Your task to perform on an android device: Search for the best vacuum on Amazon. Image 0: 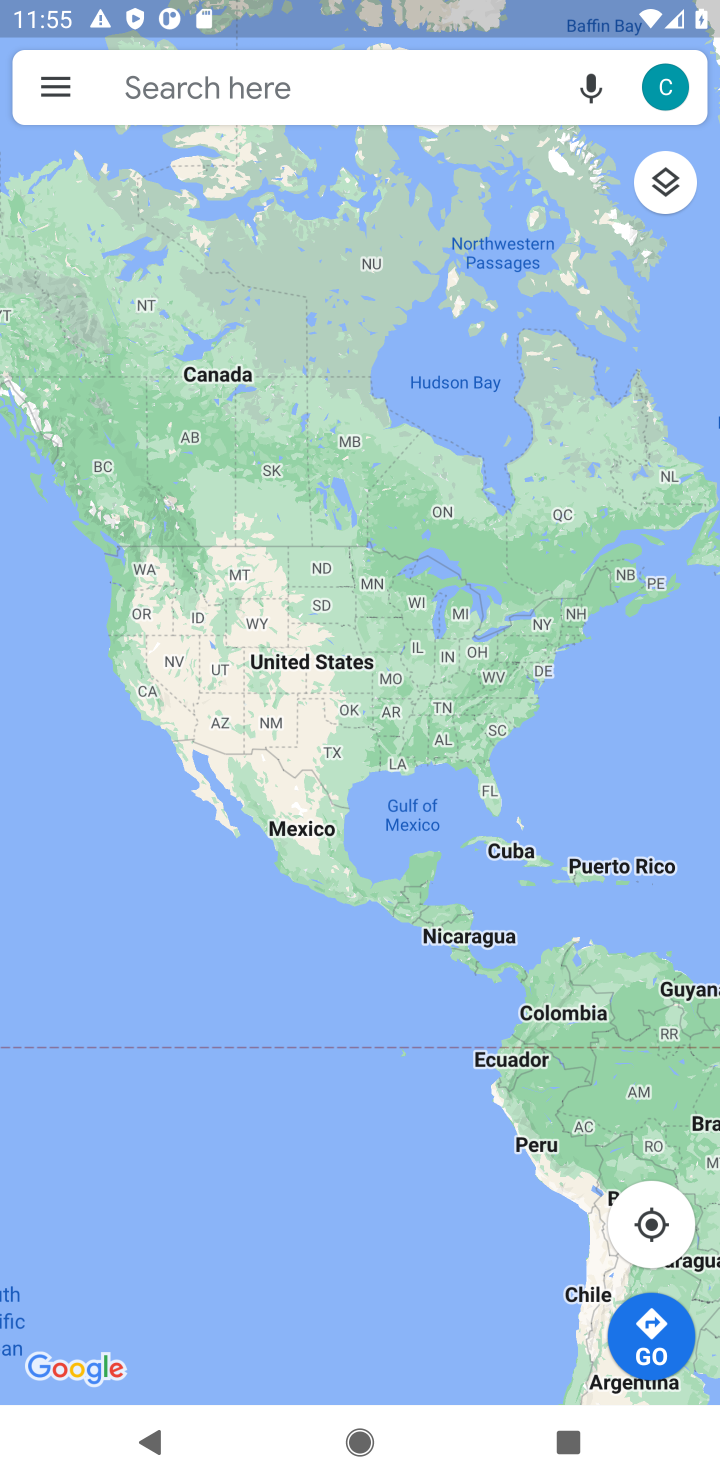
Step 0: press home button
Your task to perform on an android device: Search for the best vacuum on Amazon. Image 1: 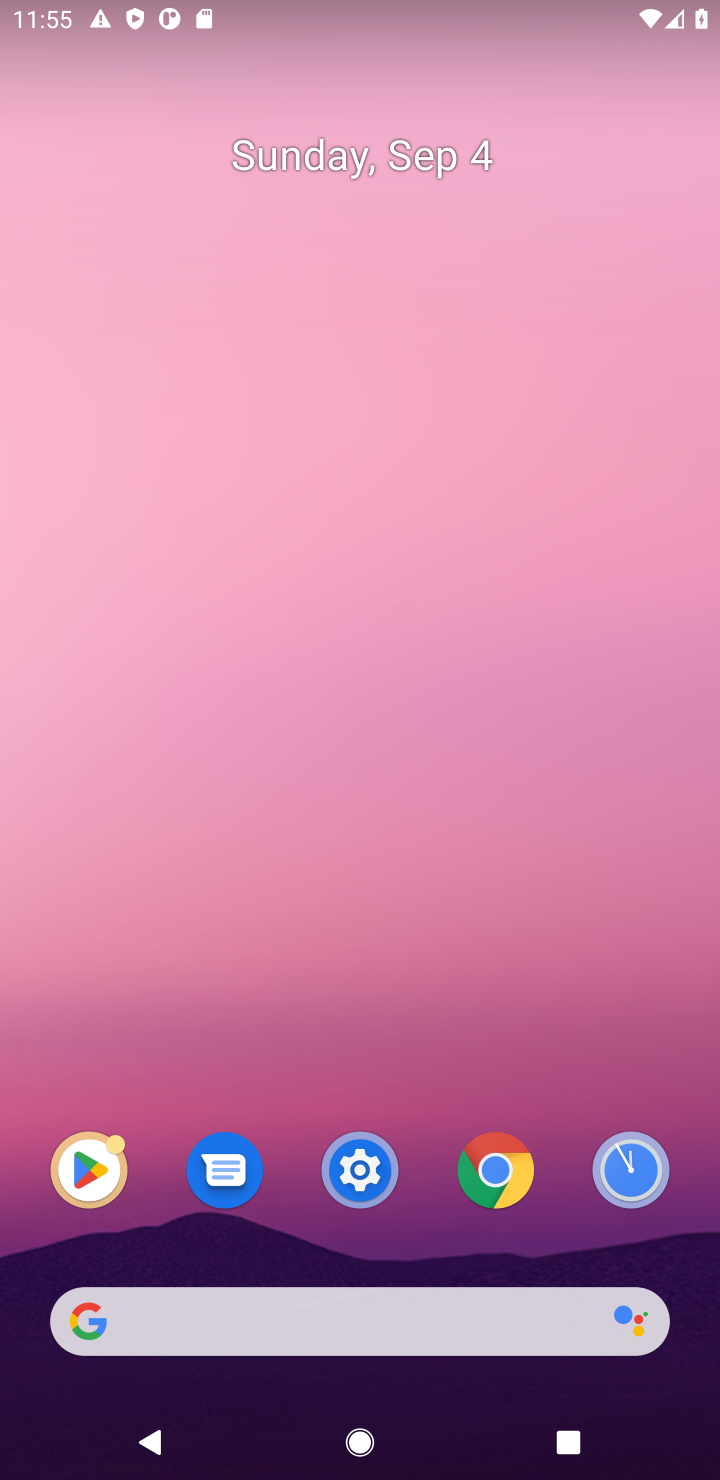
Step 1: click (519, 1305)
Your task to perform on an android device: Search for the best vacuum on Amazon. Image 2: 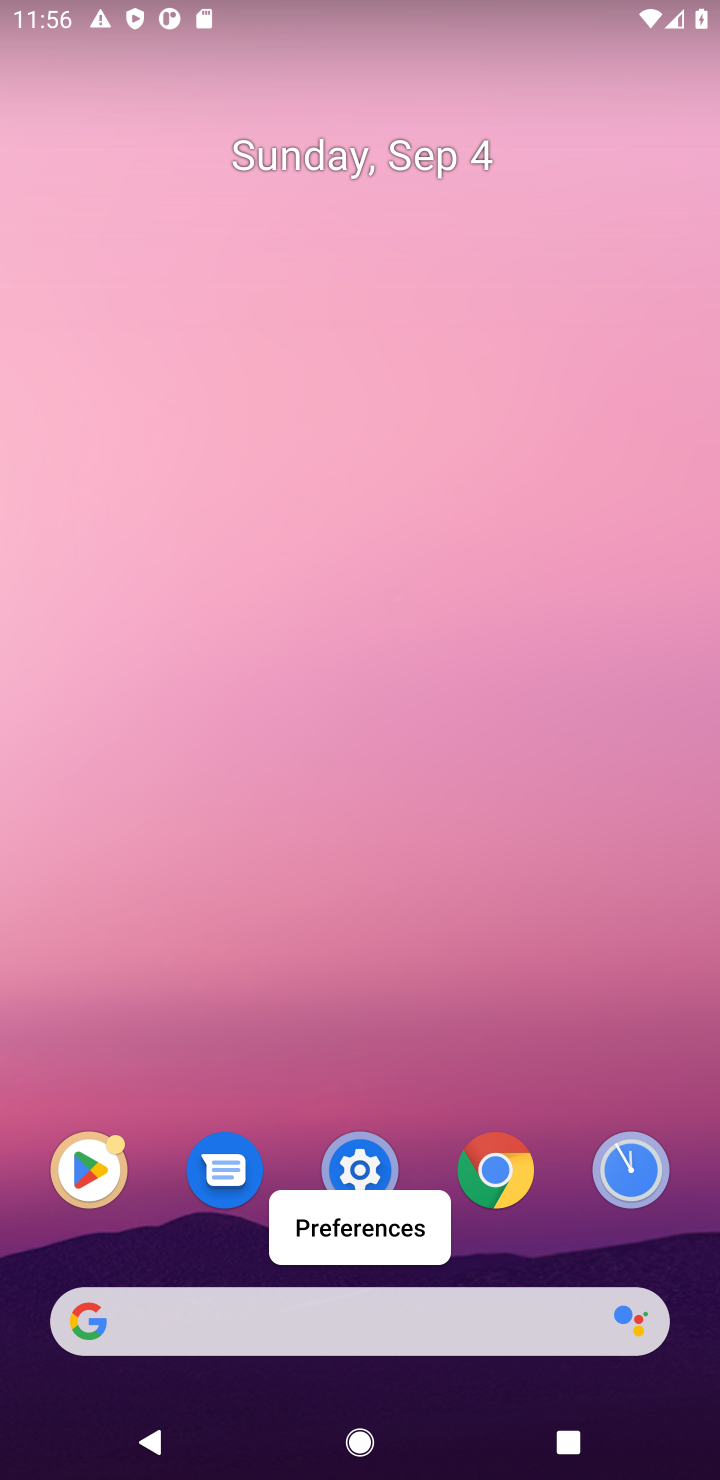
Step 2: click (519, 1305)
Your task to perform on an android device: Search for the best vacuum on Amazon. Image 3: 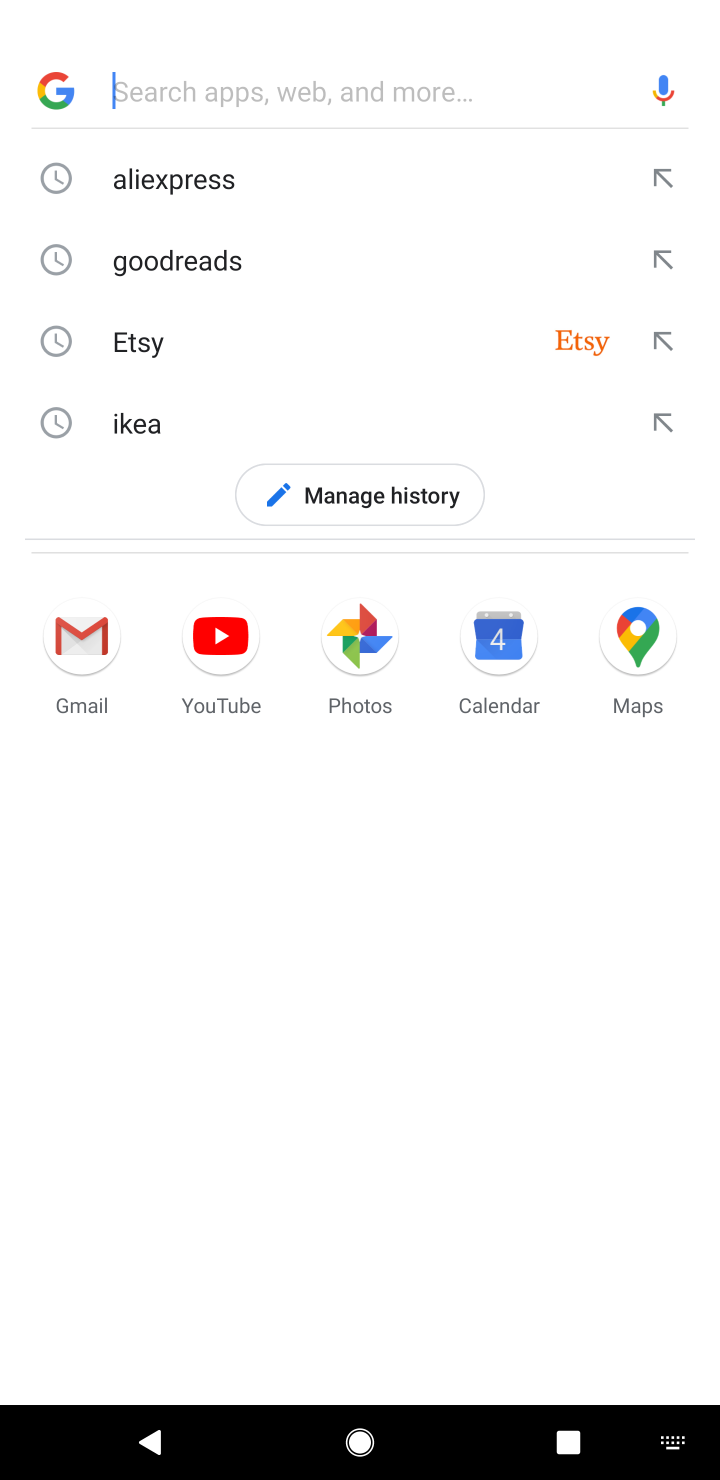
Step 3: type "Amazon."
Your task to perform on an android device: Search for the best vacuum on Amazon. Image 4: 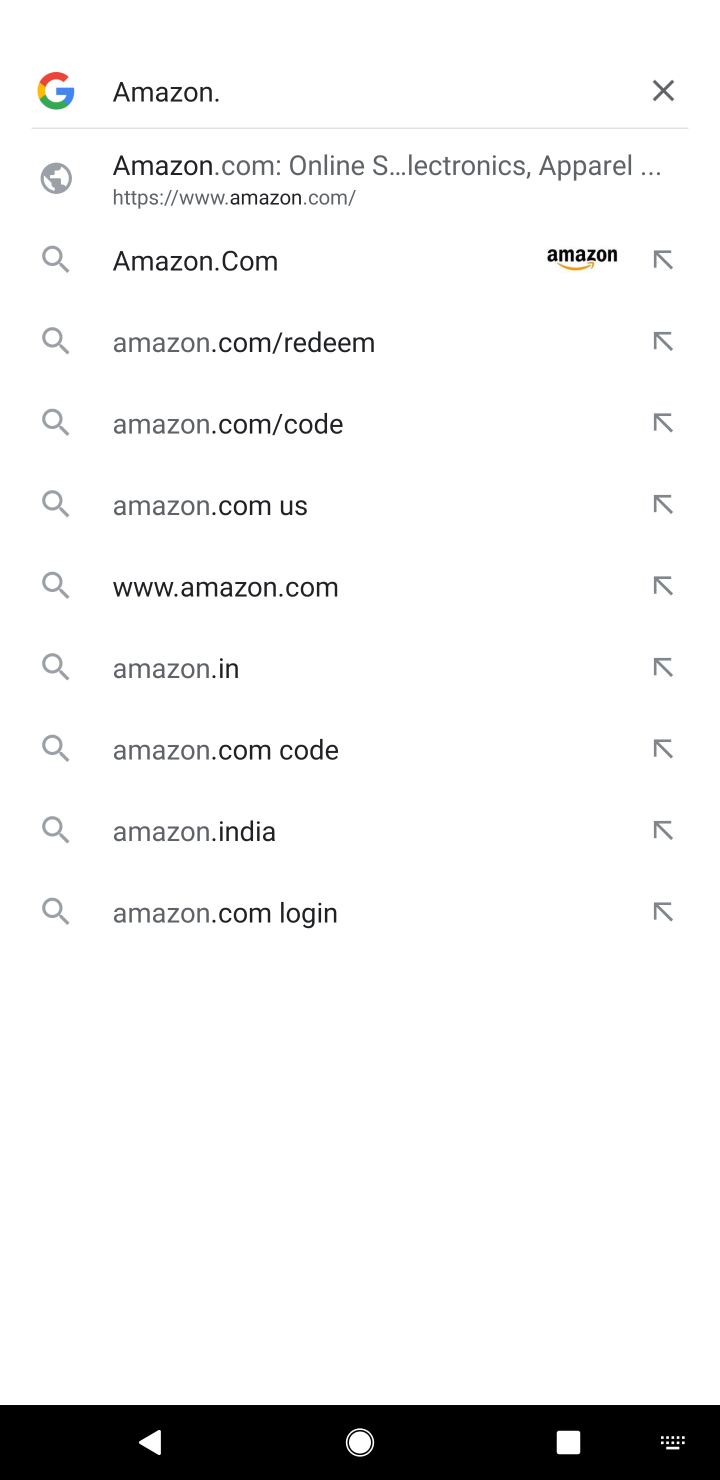
Step 4: click (253, 191)
Your task to perform on an android device: Search for the best vacuum on Amazon. Image 5: 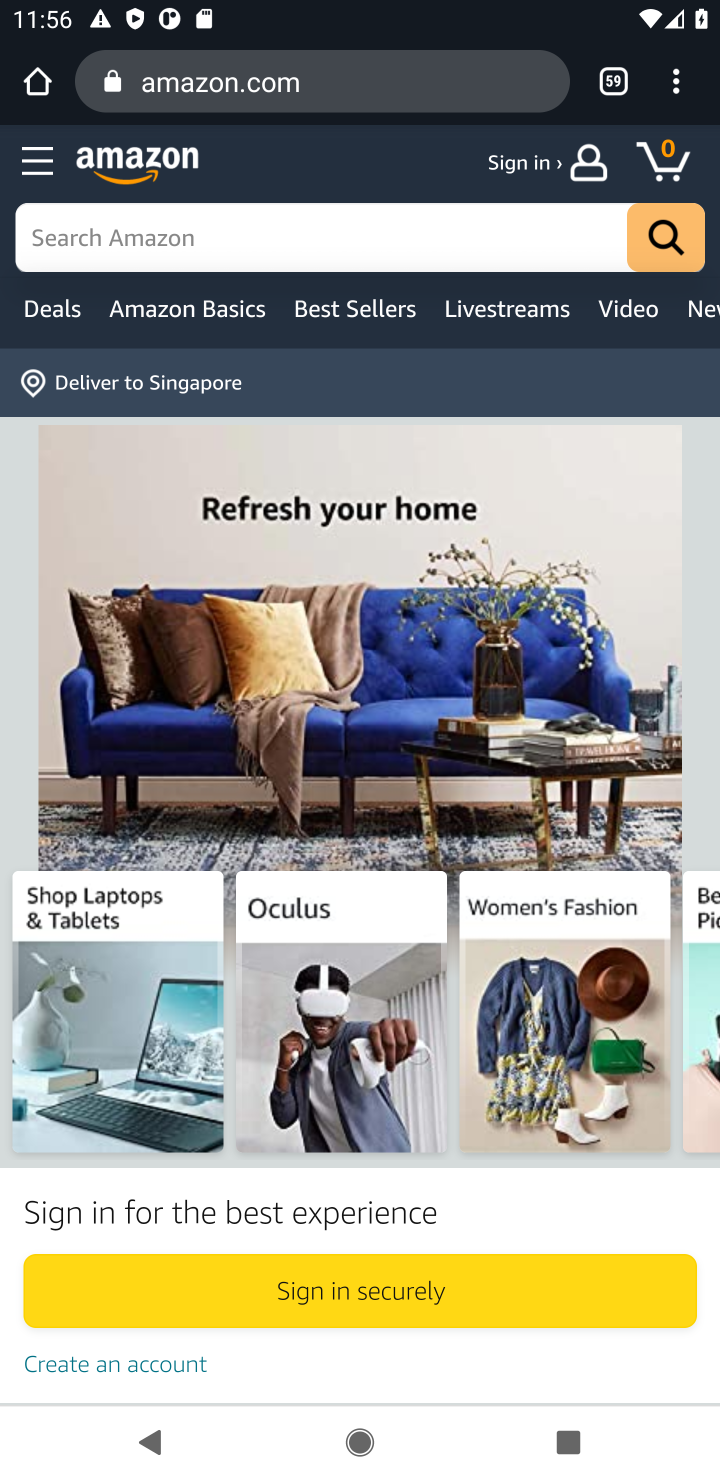
Step 5: click (289, 223)
Your task to perform on an android device: Search for the best vacuum on Amazon. Image 6: 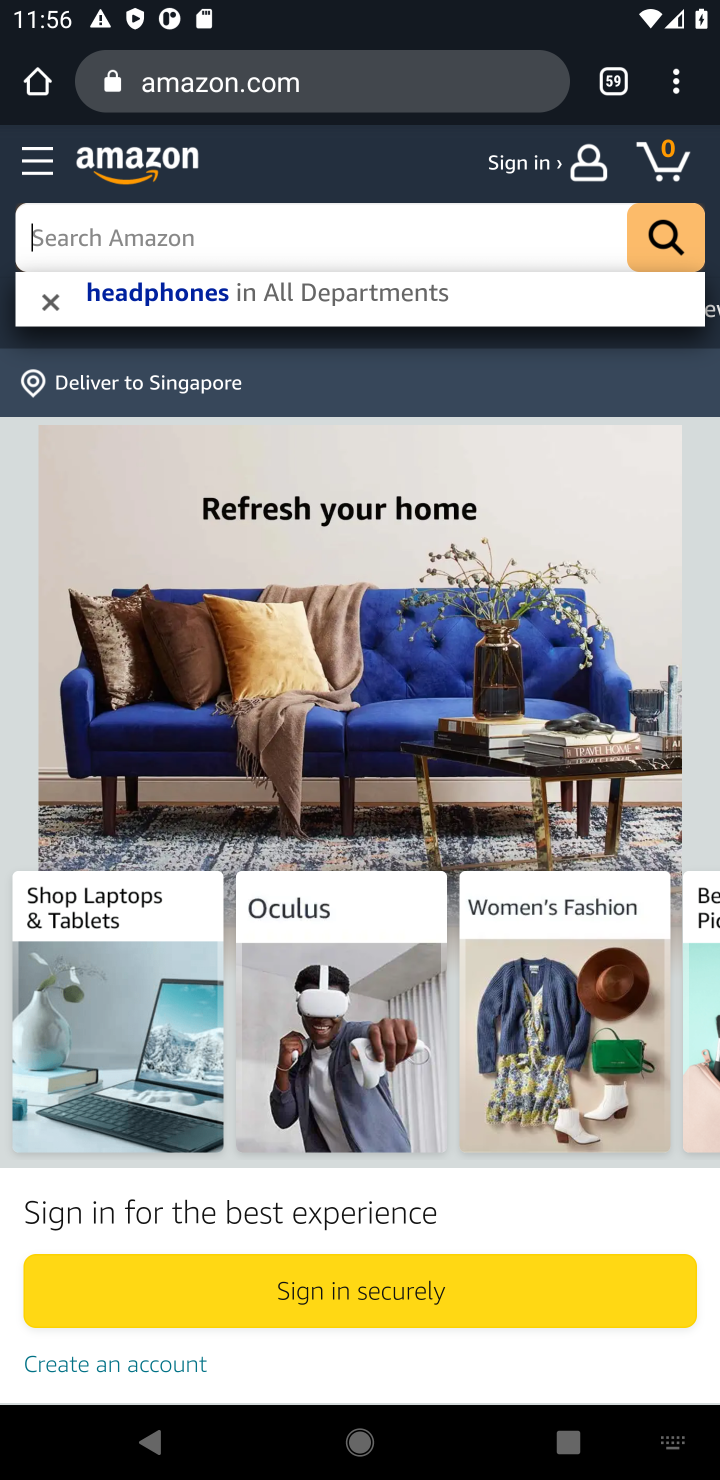
Step 6: type "vacuum"
Your task to perform on an android device: Search for the best vacuum on Amazon. Image 7: 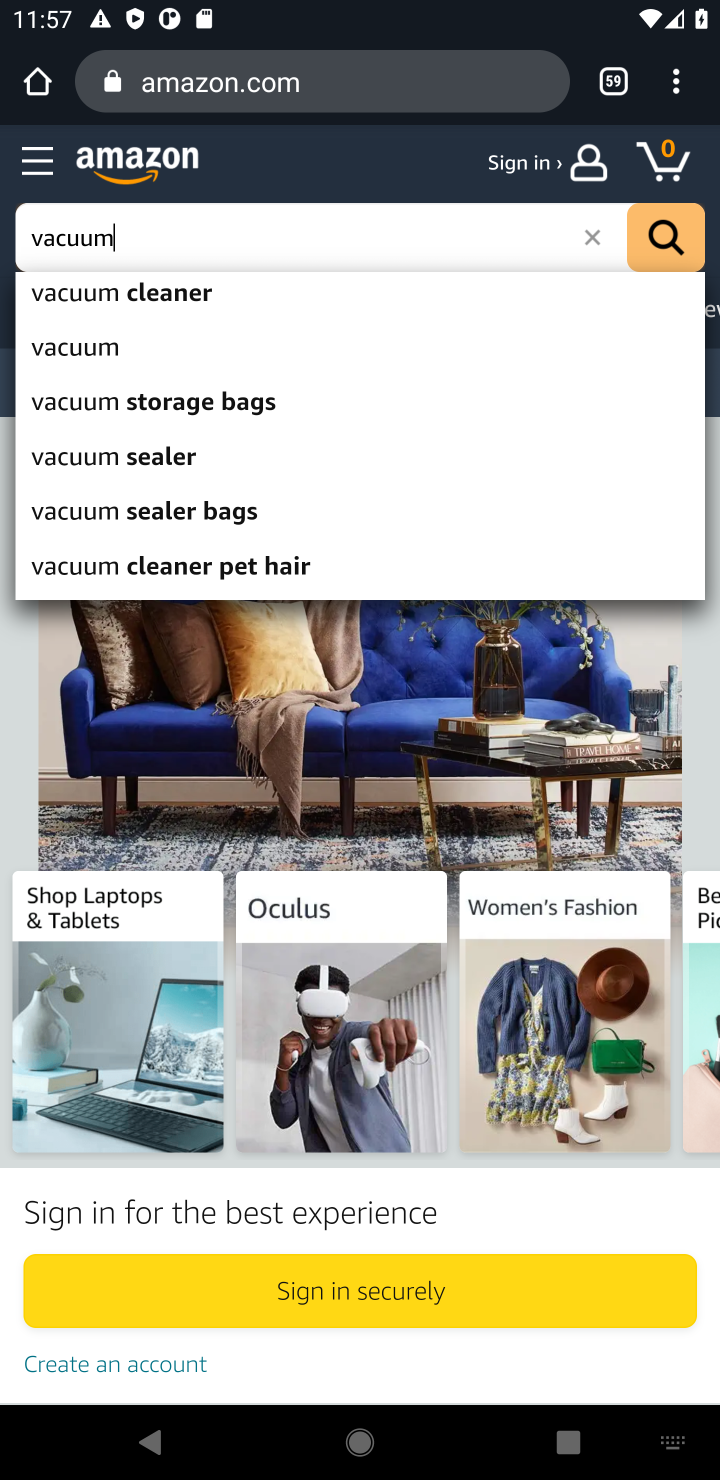
Step 7: click (123, 349)
Your task to perform on an android device: Search for the best vacuum on Amazon. Image 8: 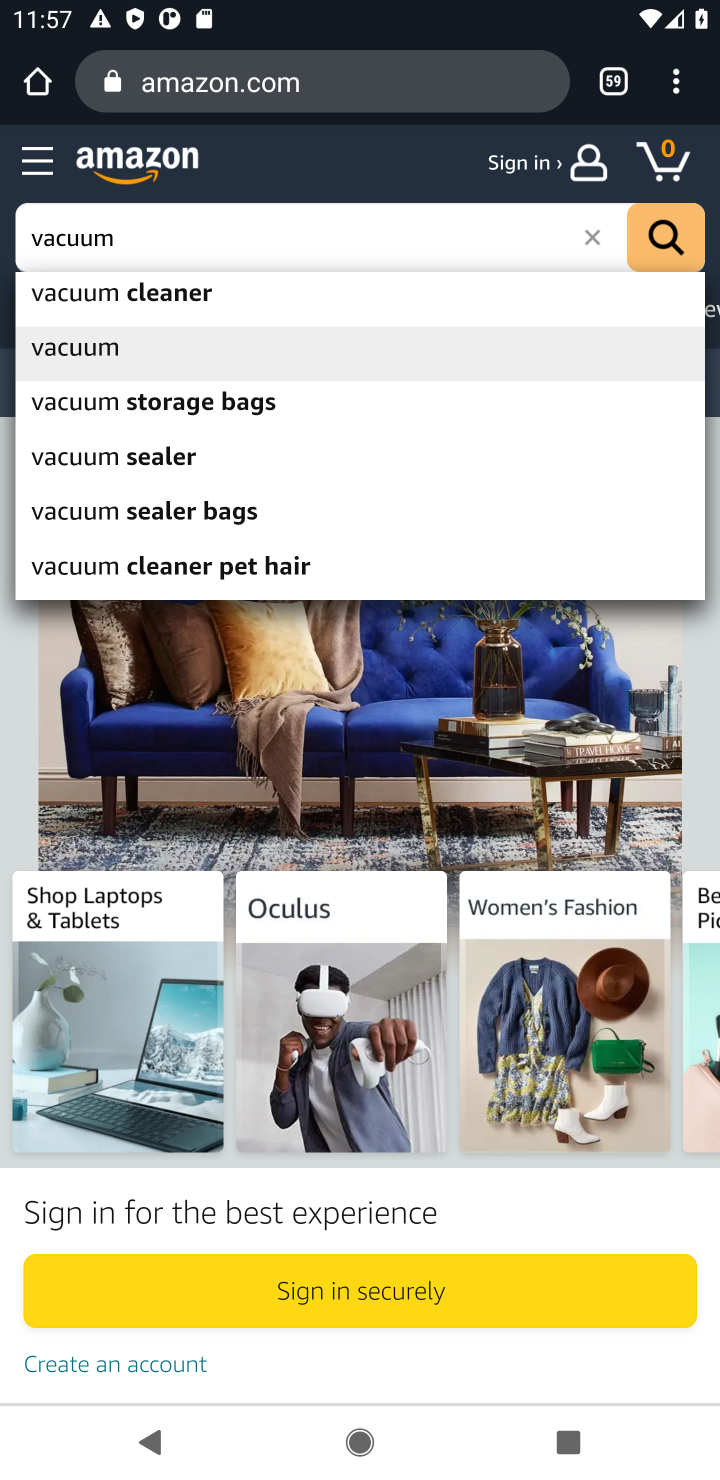
Step 8: click (209, 358)
Your task to perform on an android device: Search for the best vacuum on Amazon. Image 9: 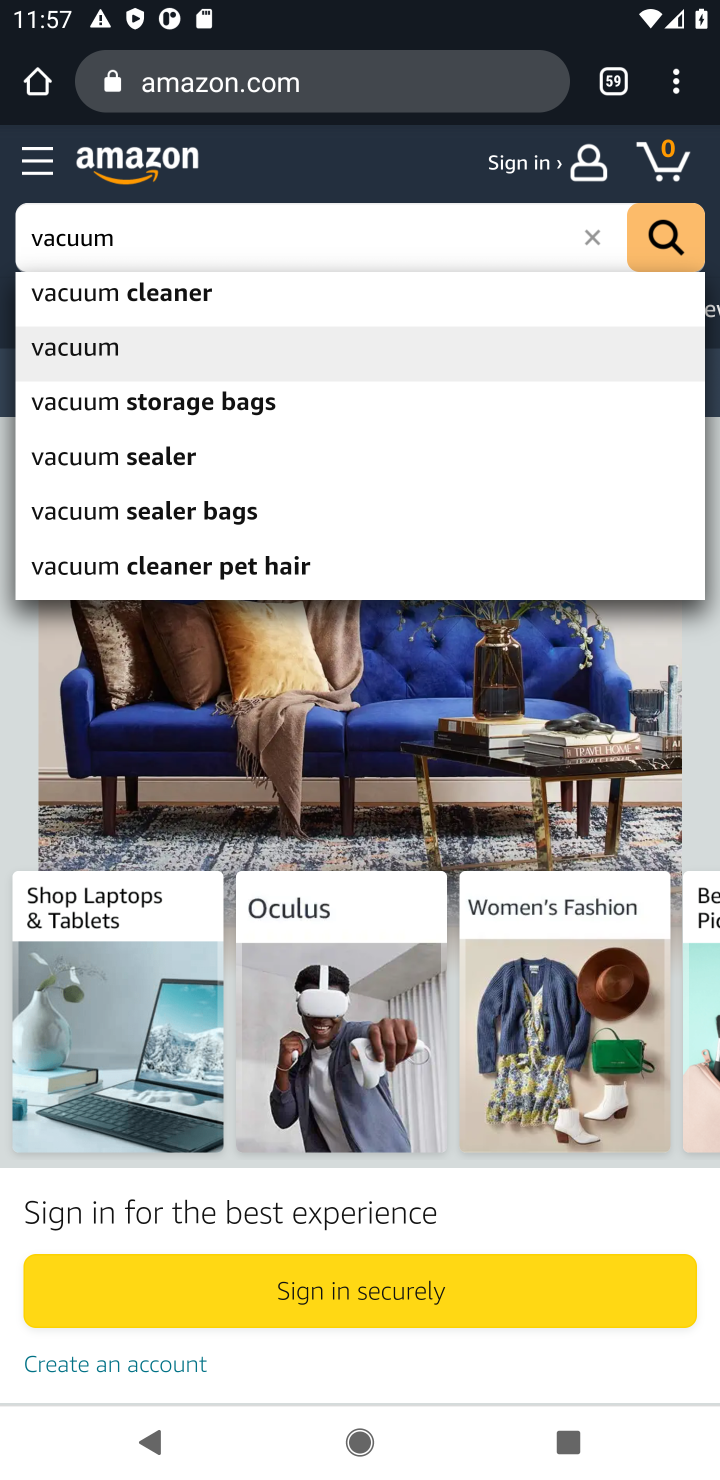
Step 9: click (139, 339)
Your task to perform on an android device: Search for the best vacuum on Amazon. Image 10: 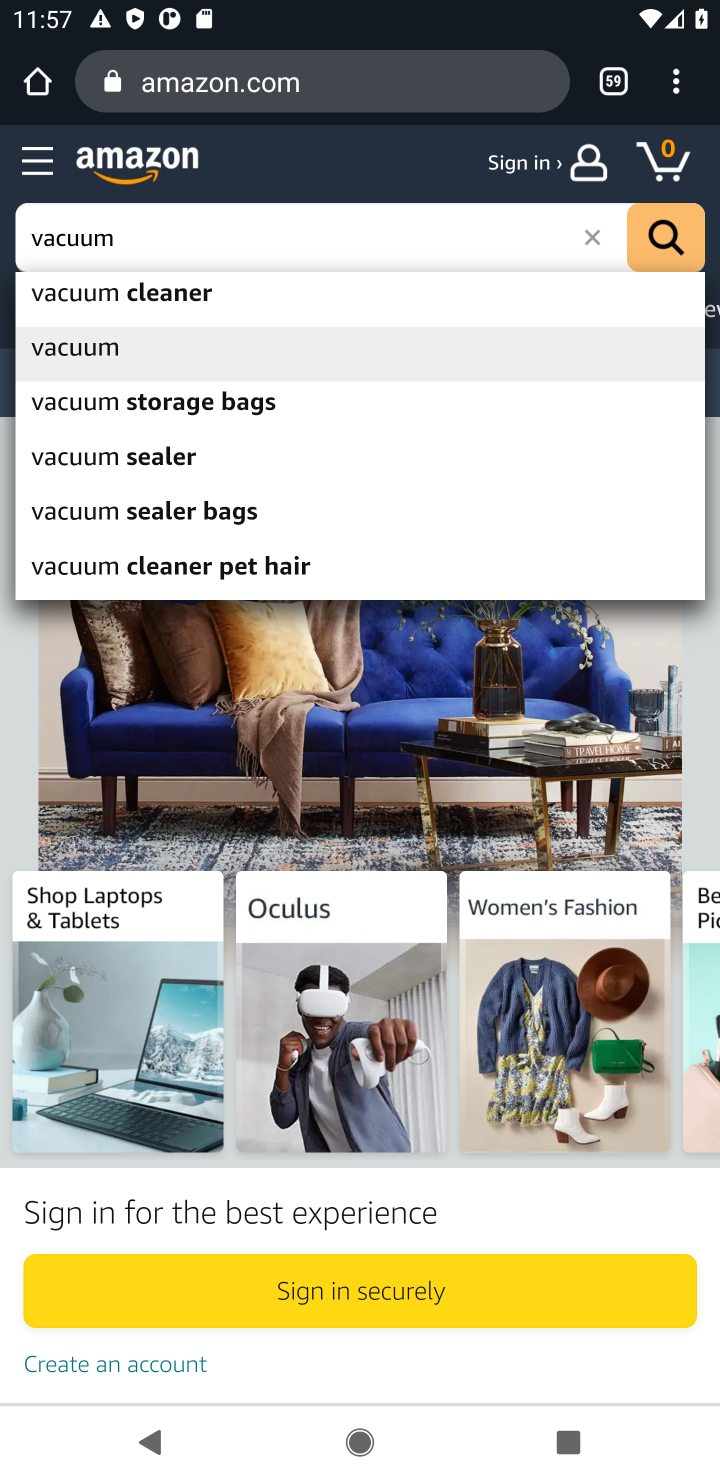
Step 10: click (144, 351)
Your task to perform on an android device: Search for the best vacuum on Amazon. Image 11: 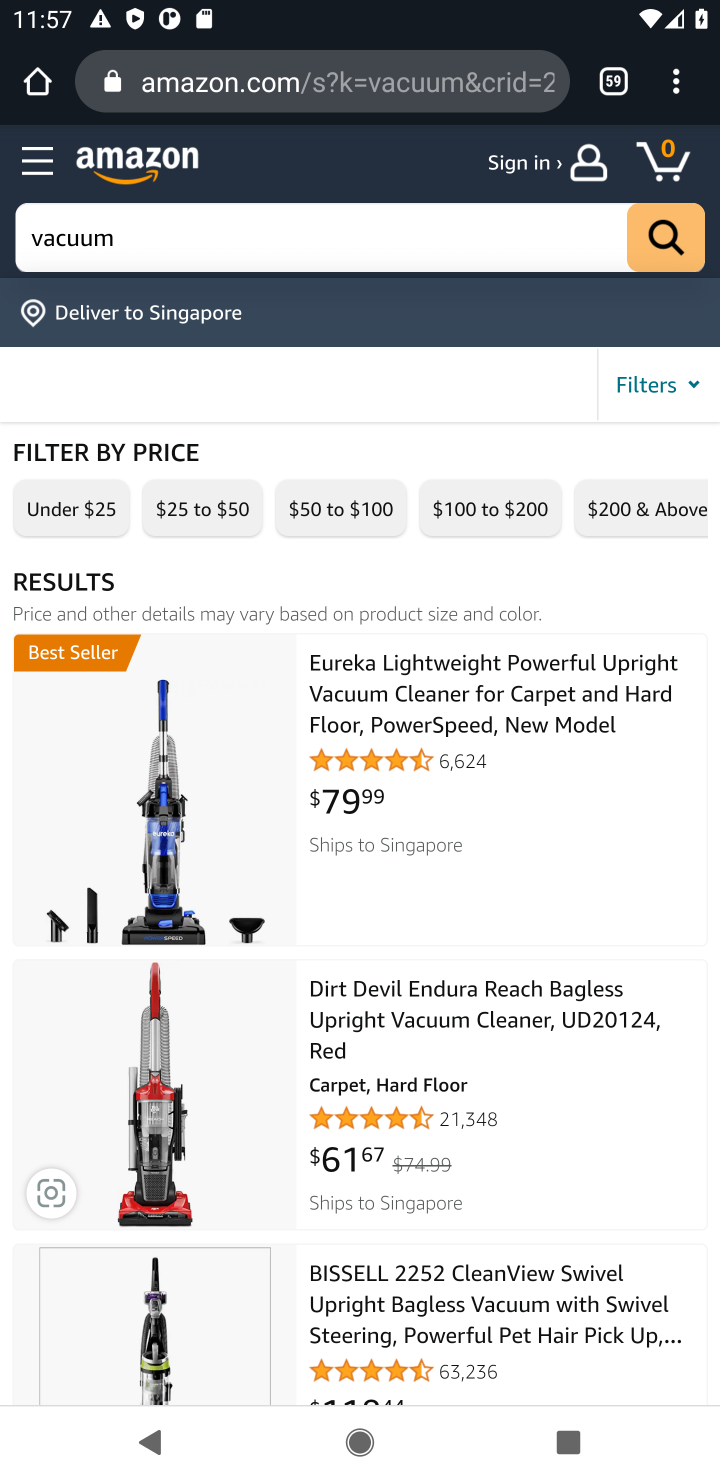
Step 11: task complete